Your task to perform on an android device: turn off sleep mode Image 0: 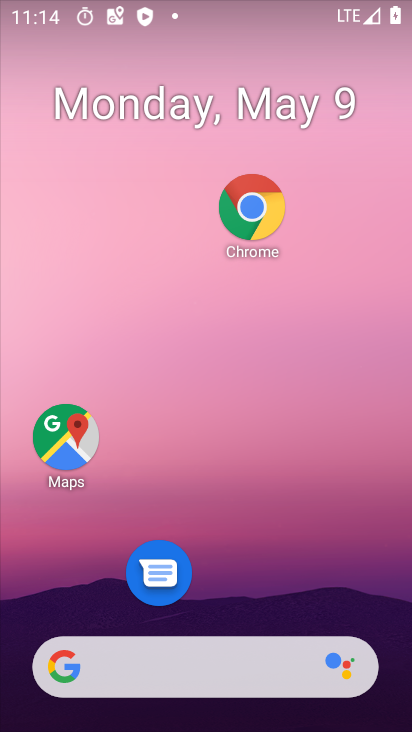
Step 0: drag from (251, 601) to (242, 108)
Your task to perform on an android device: turn off sleep mode Image 1: 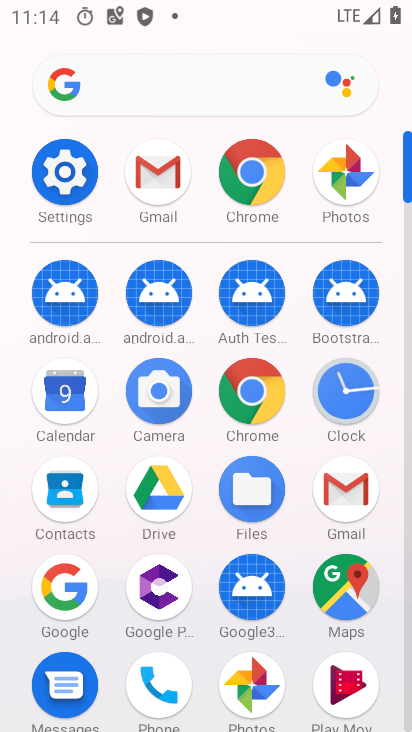
Step 1: click (83, 189)
Your task to perform on an android device: turn off sleep mode Image 2: 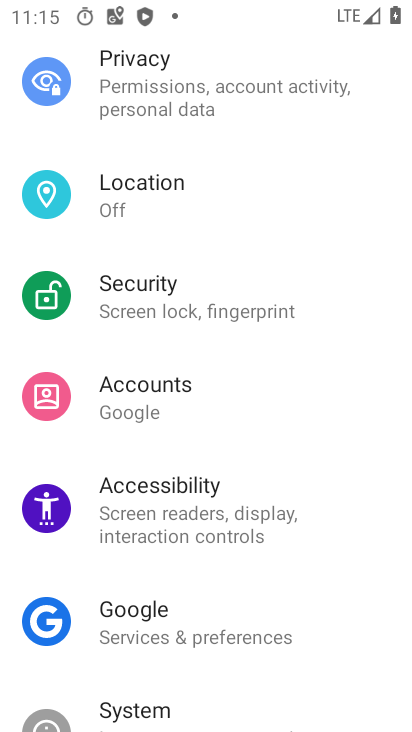
Step 2: drag from (225, 201) to (186, 605)
Your task to perform on an android device: turn off sleep mode Image 3: 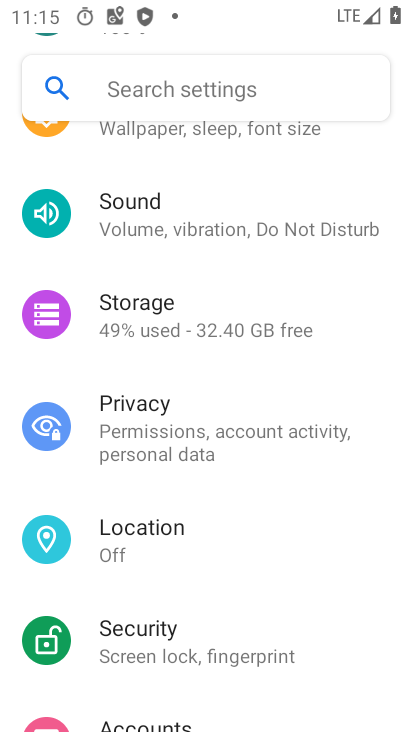
Step 3: drag from (231, 232) to (204, 593)
Your task to perform on an android device: turn off sleep mode Image 4: 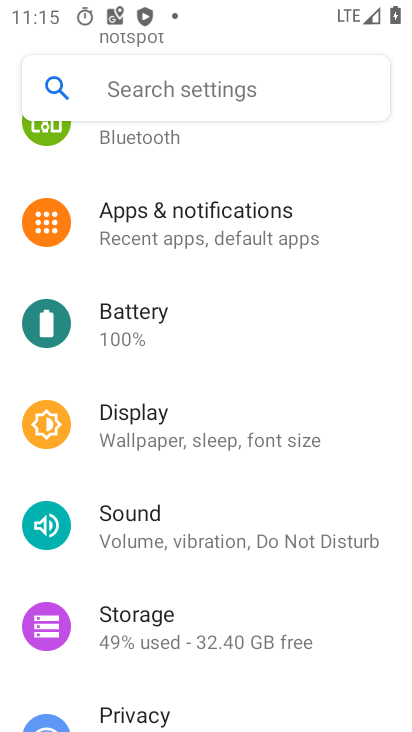
Step 4: click (156, 411)
Your task to perform on an android device: turn off sleep mode Image 5: 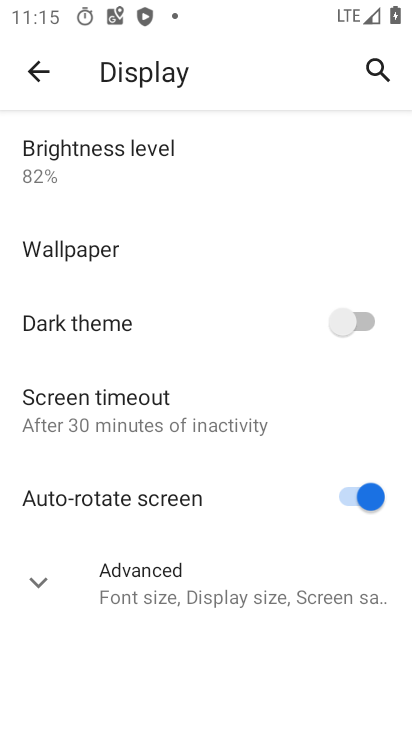
Step 5: task complete